Your task to perform on an android device: find which apps use the phone's location Image 0: 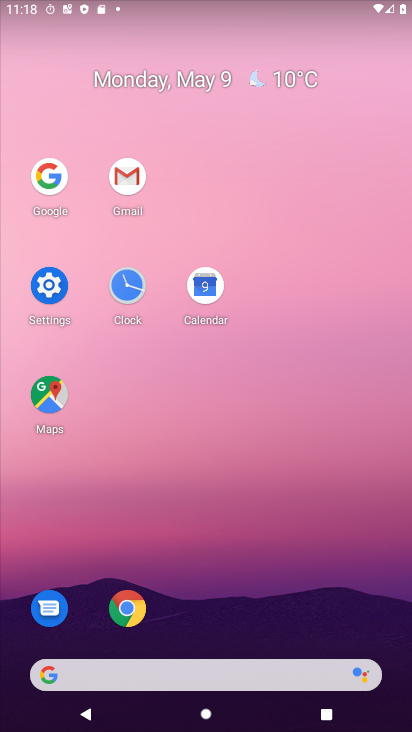
Step 0: click (36, 274)
Your task to perform on an android device: find which apps use the phone's location Image 1: 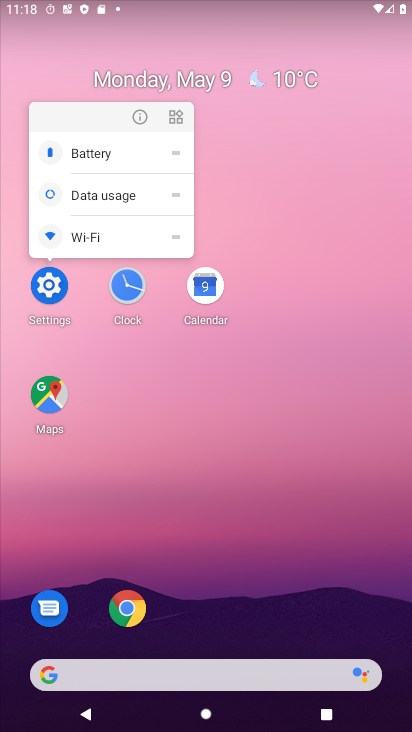
Step 1: click (65, 308)
Your task to perform on an android device: find which apps use the phone's location Image 2: 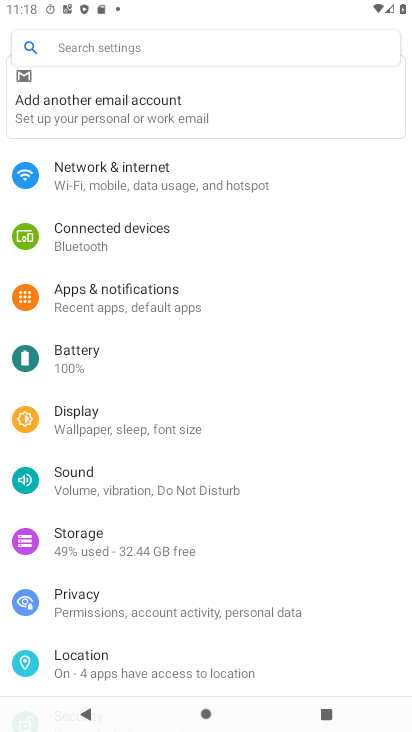
Step 2: click (258, 662)
Your task to perform on an android device: find which apps use the phone's location Image 3: 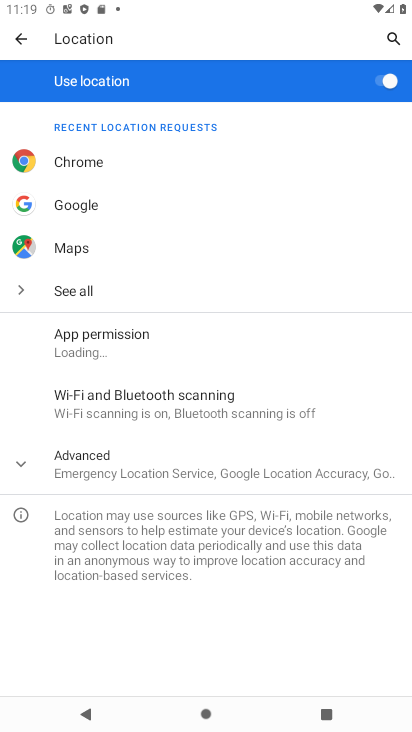
Step 3: task complete